Your task to perform on an android device: open app "Google News" (install if not already installed) Image 0: 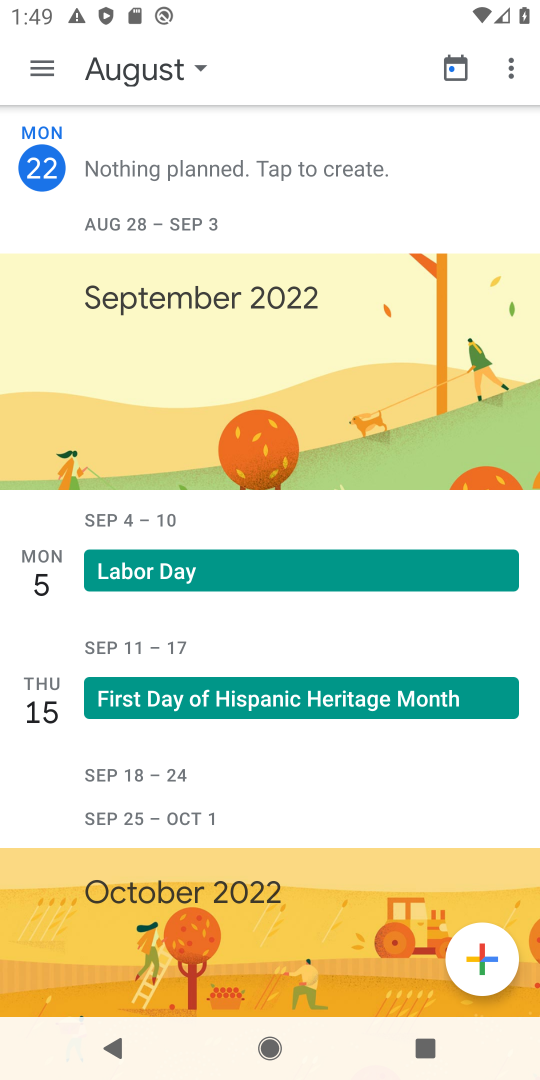
Step 0: press home button
Your task to perform on an android device: open app "Google News" (install if not already installed) Image 1: 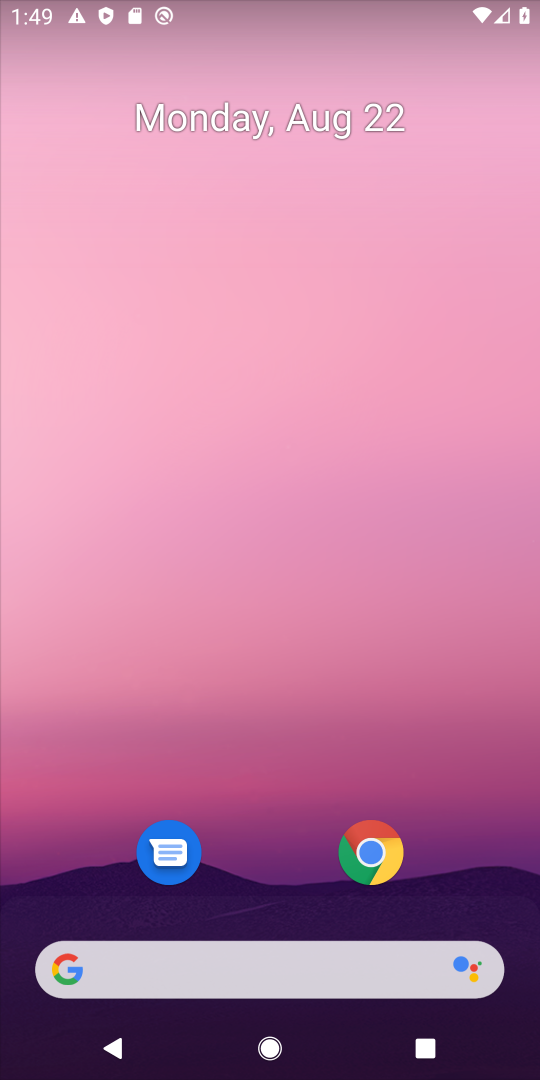
Step 1: drag from (271, 546) to (268, 26)
Your task to perform on an android device: open app "Google News" (install if not already installed) Image 2: 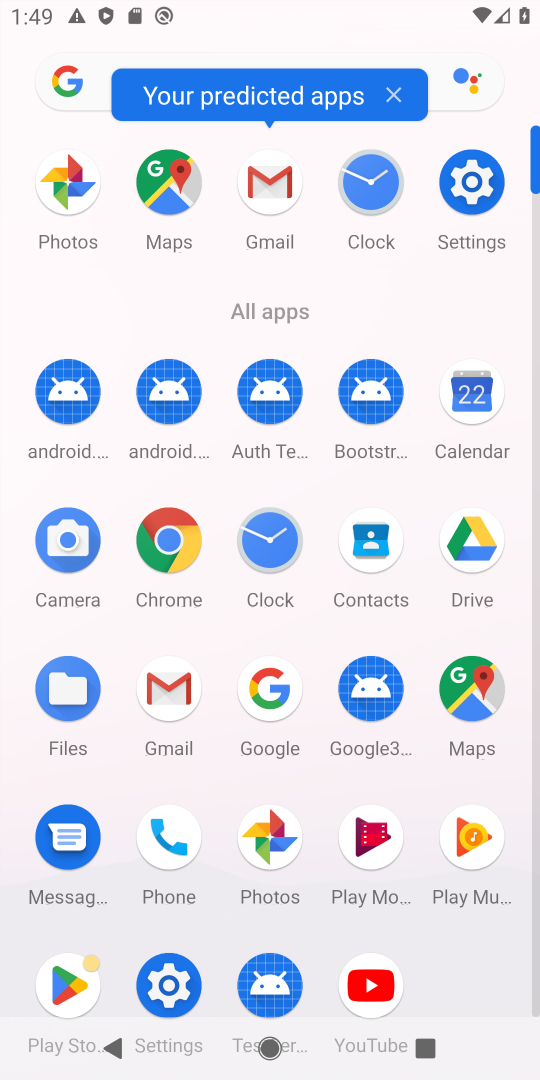
Step 2: click (69, 988)
Your task to perform on an android device: open app "Google News" (install if not already installed) Image 3: 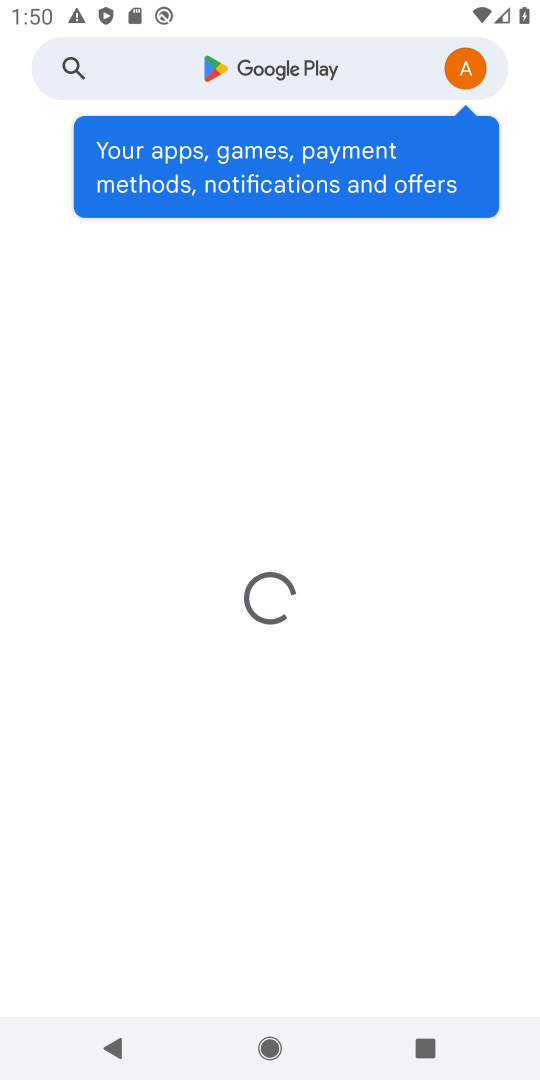
Step 3: click (286, 65)
Your task to perform on an android device: open app "Google News" (install if not already installed) Image 4: 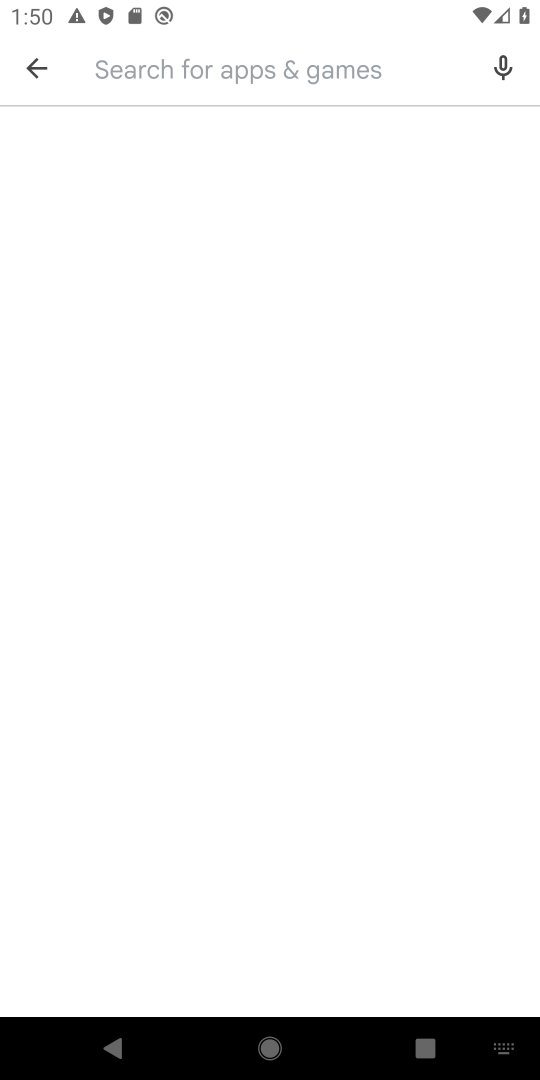
Step 4: type "Google News"
Your task to perform on an android device: open app "Google News" (install if not already installed) Image 5: 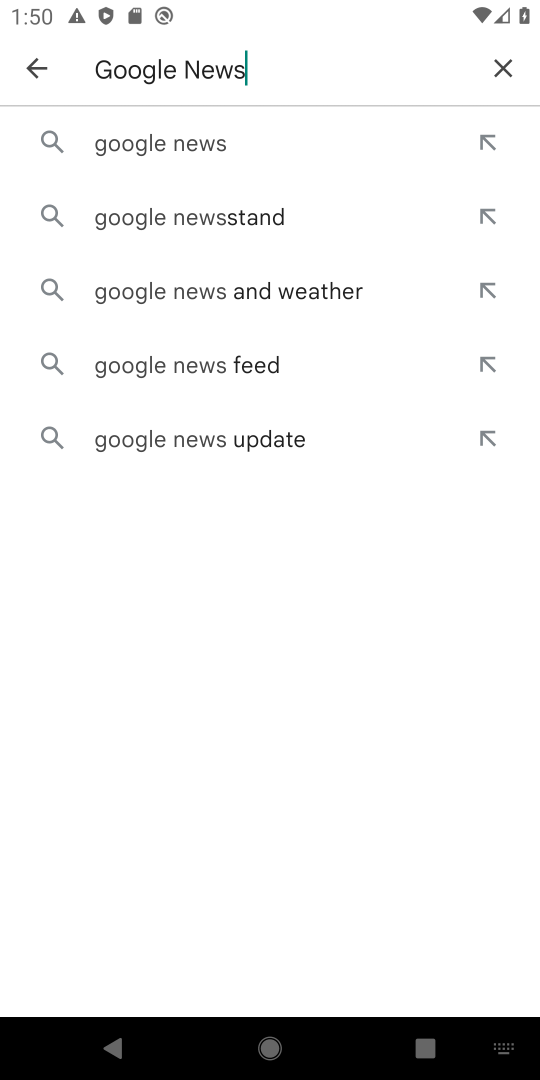
Step 5: click (146, 146)
Your task to perform on an android device: open app "Google News" (install if not already installed) Image 6: 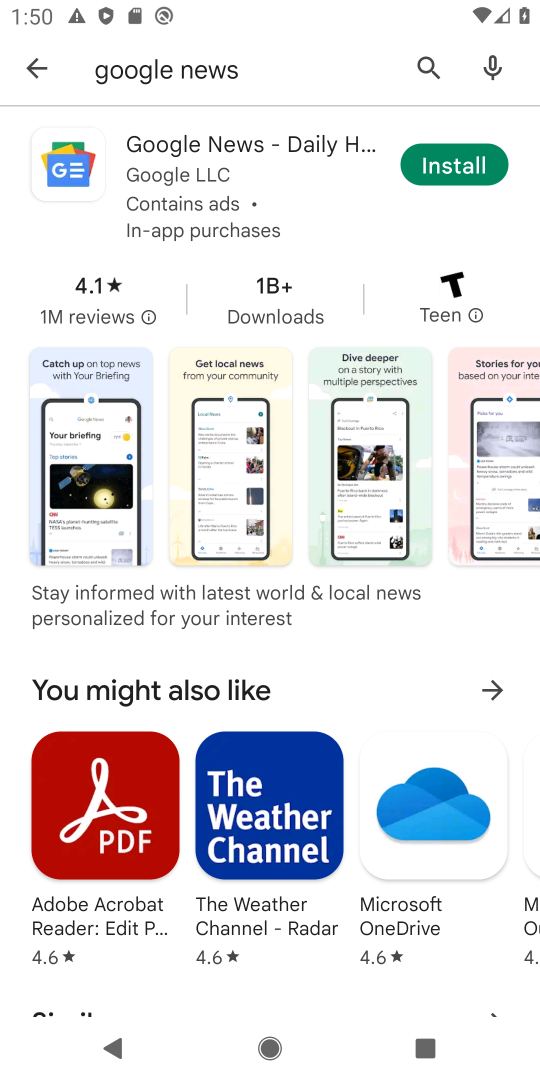
Step 6: click (467, 159)
Your task to perform on an android device: open app "Google News" (install if not already installed) Image 7: 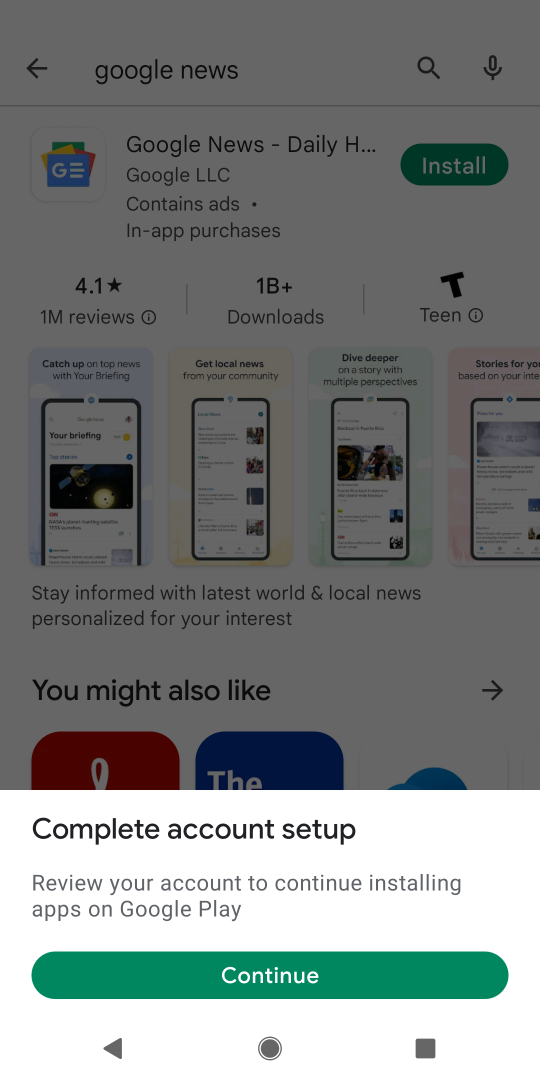
Step 7: click (277, 967)
Your task to perform on an android device: open app "Google News" (install if not already installed) Image 8: 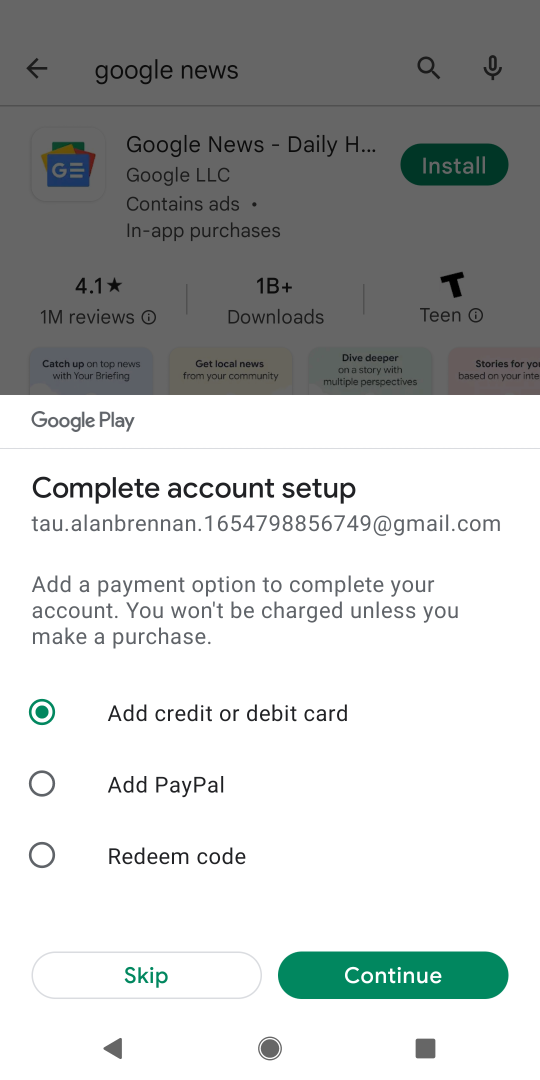
Step 8: click (188, 973)
Your task to perform on an android device: open app "Google News" (install if not already installed) Image 9: 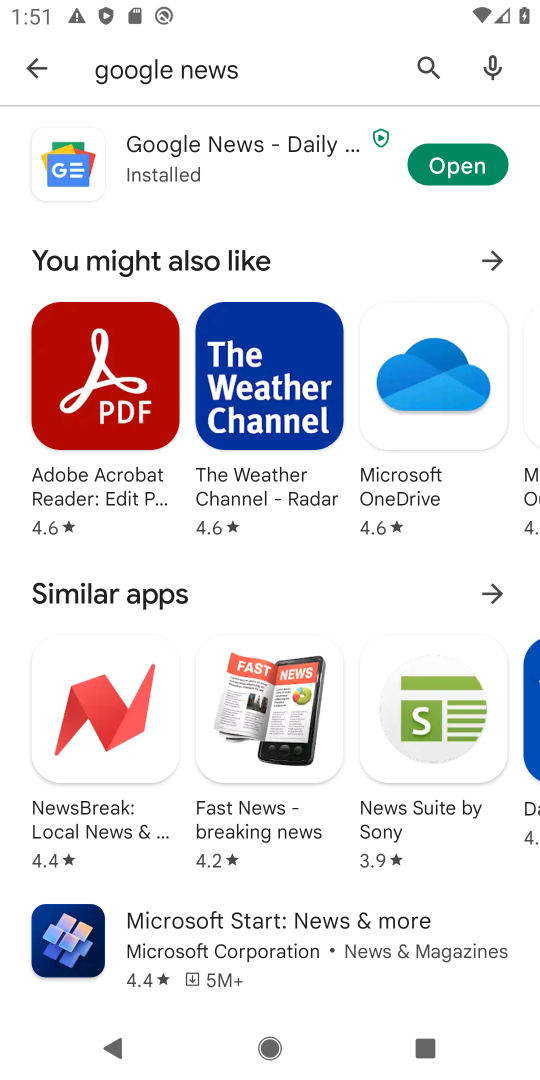
Step 9: click (457, 165)
Your task to perform on an android device: open app "Google News" (install if not already installed) Image 10: 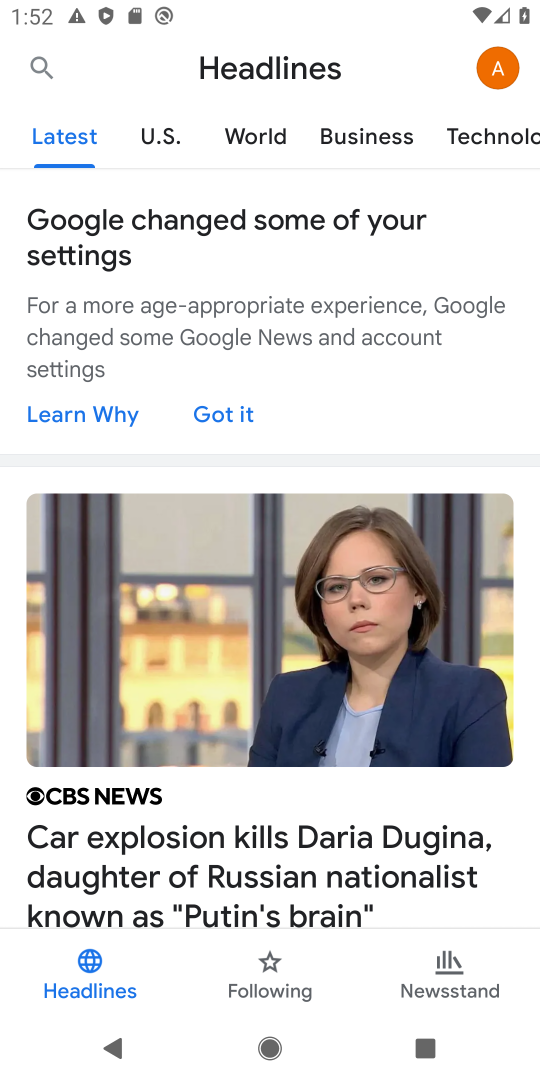
Step 10: task complete